Your task to perform on an android device: check google app version Image 0: 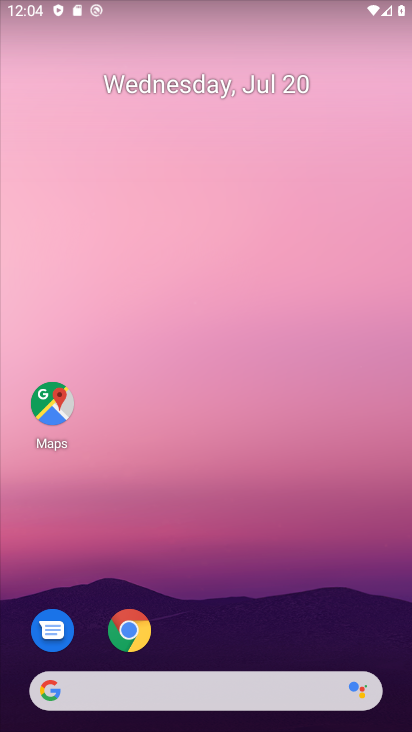
Step 0: drag from (127, 681) to (272, 118)
Your task to perform on an android device: check google app version Image 1: 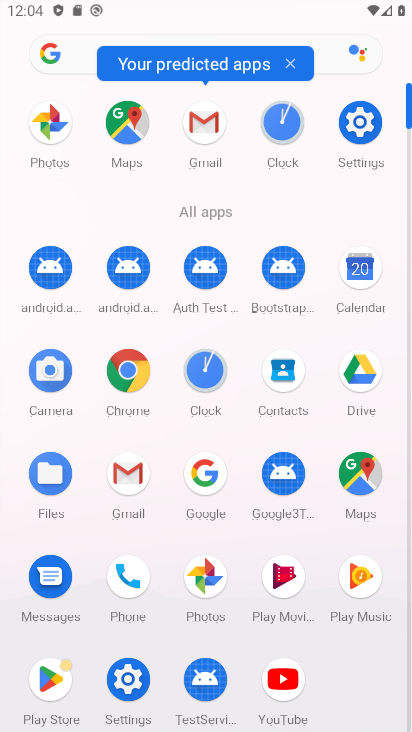
Step 1: click (210, 474)
Your task to perform on an android device: check google app version Image 2: 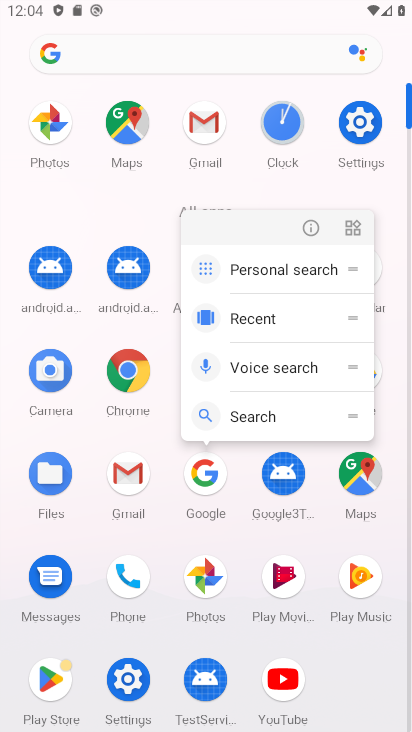
Step 2: click (308, 229)
Your task to perform on an android device: check google app version Image 3: 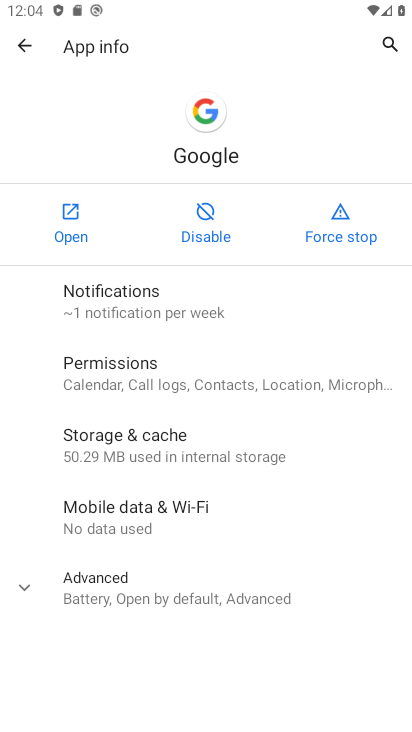
Step 3: drag from (194, 636) to (335, 114)
Your task to perform on an android device: check google app version Image 4: 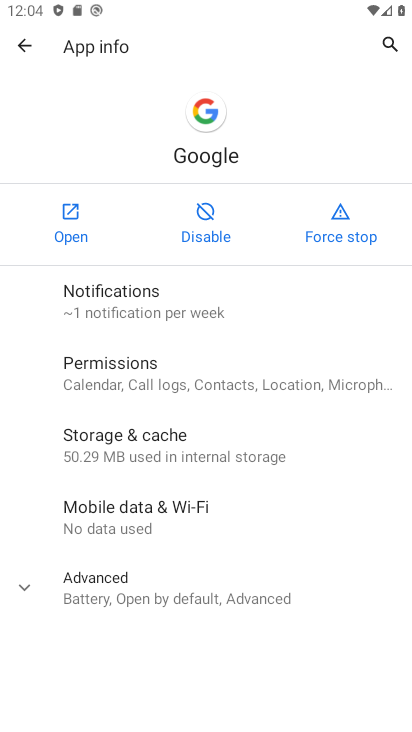
Step 4: click (113, 576)
Your task to perform on an android device: check google app version Image 5: 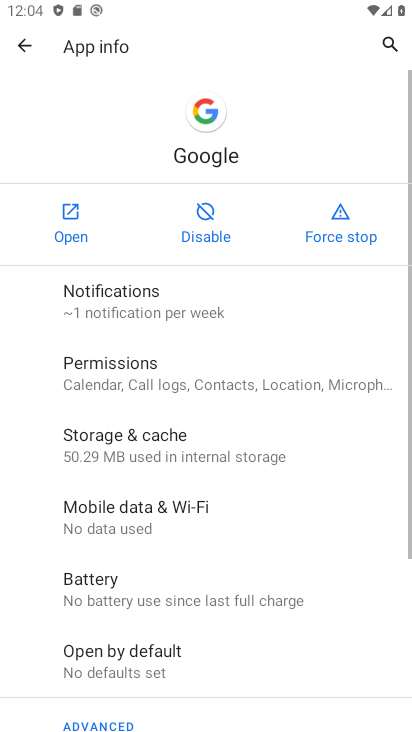
Step 5: click (347, 93)
Your task to perform on an android device: check google app version Image 6: 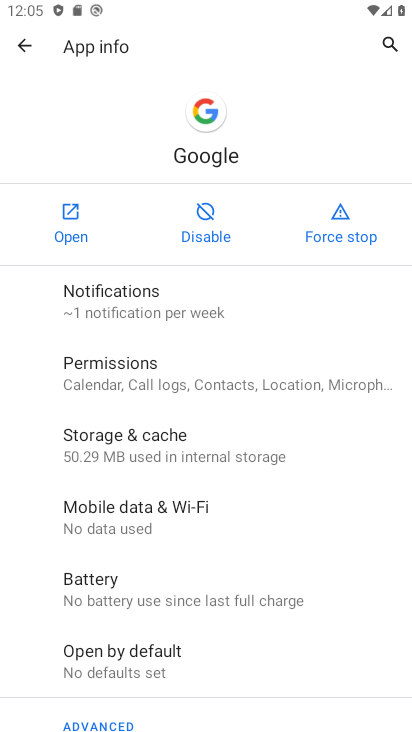
Step 6: task complete